Your task to perform on an android device: turn on the 24-hour format for clock Image 0: 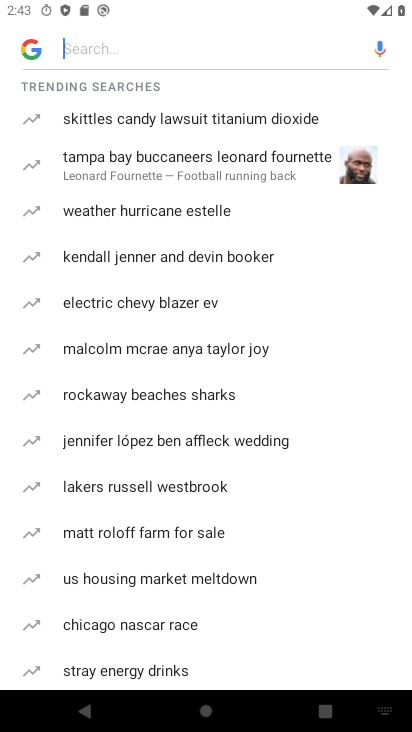
Step 0: press home button
Your task to perform on an android device: turn on the 24-hour format for clock Image 1: 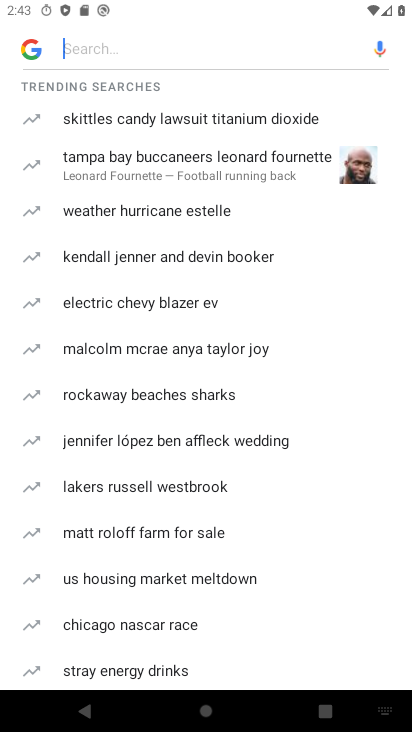
Step 1: press home button
Your task to perform on an android device: turn on the 24-hour format for clock Image 2: 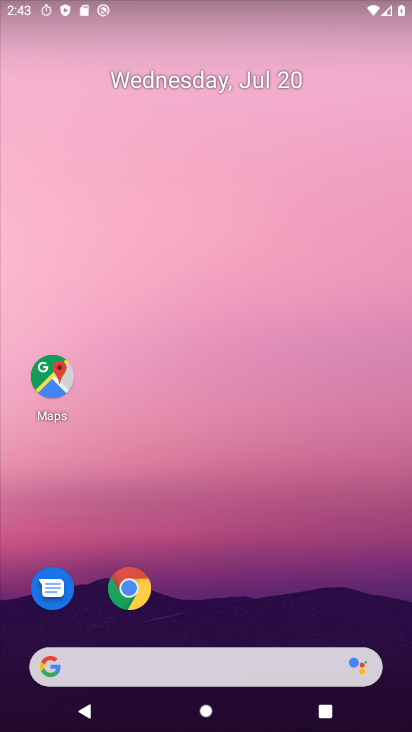
Step 2: drag from (198, 618) to (260, 160)
Your task to perform on an android device: turn on the 24-hour format for clock Image 3: 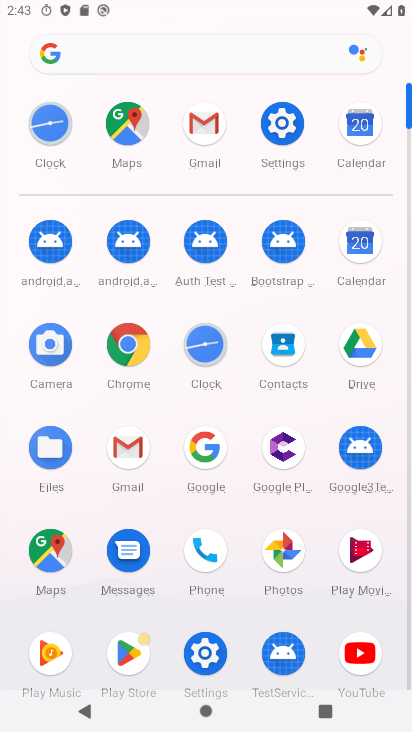
Step 3: click (204, 333)
Your task to perform on an android device: turn on the 24-hour format for clock Image 4: 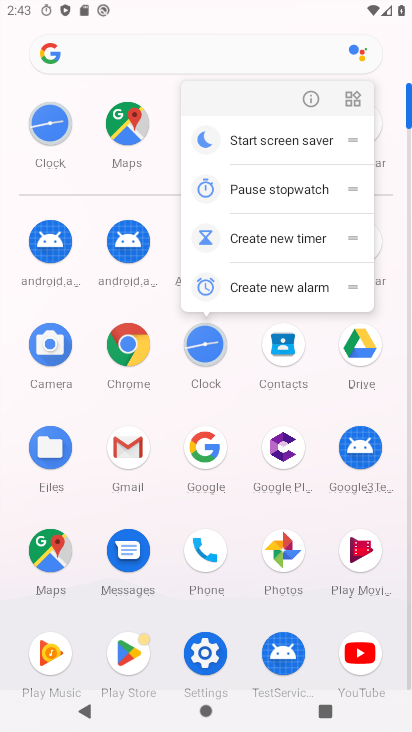
Step 4: click (312, 101)
Your task to perform on an android device: turn on the 24-hour format for clock Image 5: 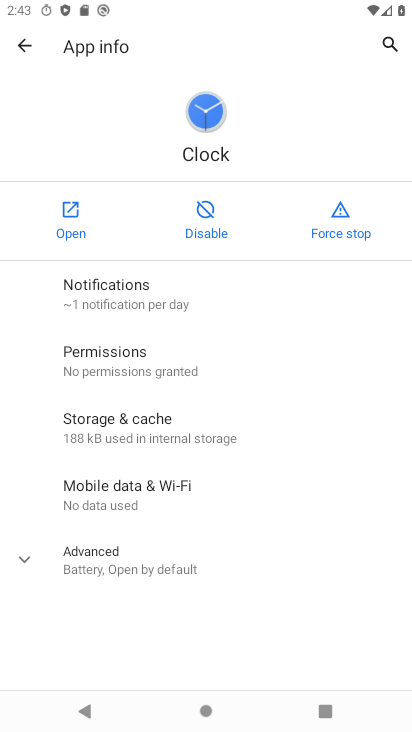
Step 5: click (55, 225)
Your task to perform on an android device: turn on the 24-hour format for clock Image 6: 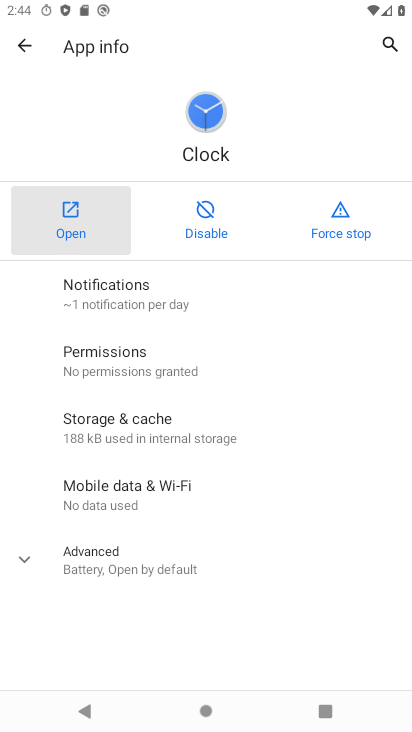
Step 6: click (55, 225)
Your task to perform on an android device: turn on the 24-hour format for clock Image 7: 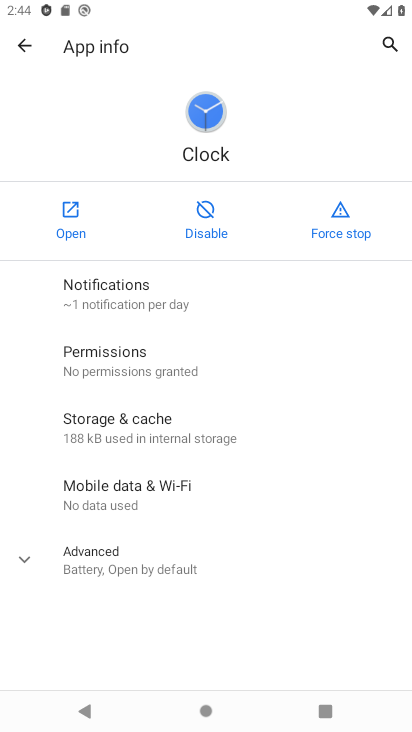
Step 7: click (55, 225)
Your task to perform on an android device: turn on the 24-hour format for clock Image 8: 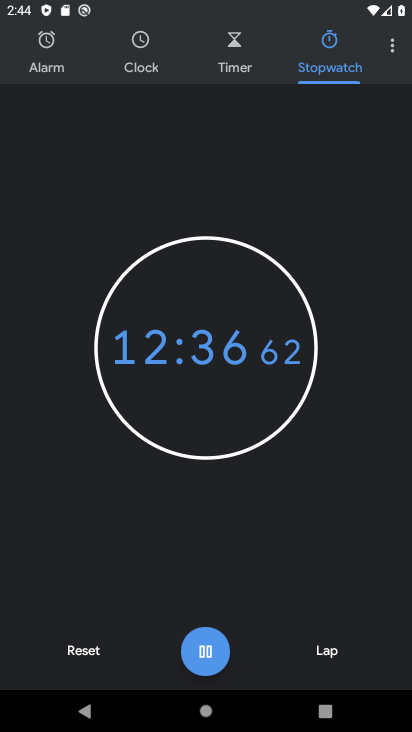
Step 8: click (395, 50)
Your task to perform on an android device: turn on the 24-hour format for clock Image 9: 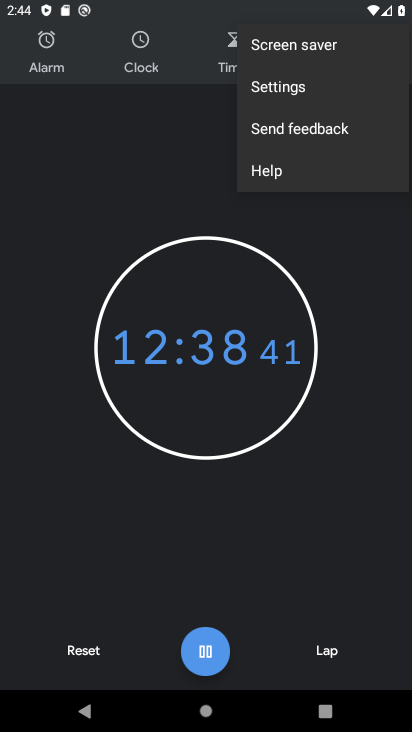
Step 9: click (302, 72)
Your task to perform on an android device: turn on the 24-hour format for clock Image 10: 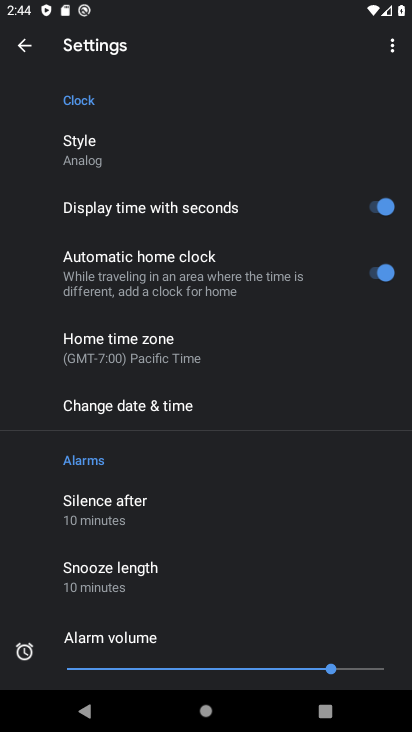
Step 10: drag from (210, 483) to (282, 153)
Your task to perform on an android device: turn on the 24-hour format for clock Image 11: 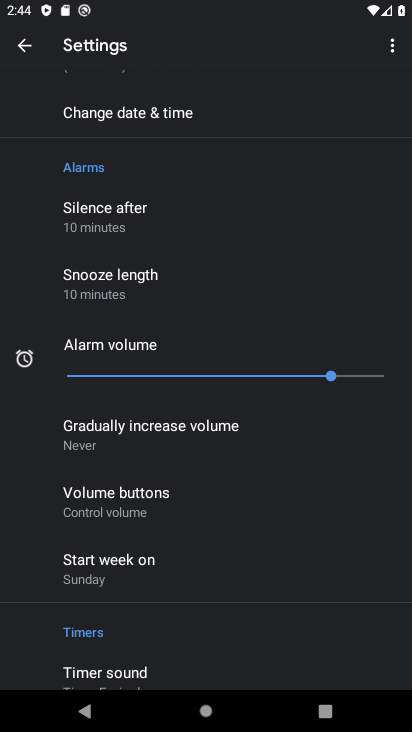
Step 11: drag from (193, 278) to (231, 691)
Your task to perform on an android device: turn on the 24-hour format for clock Image 12: 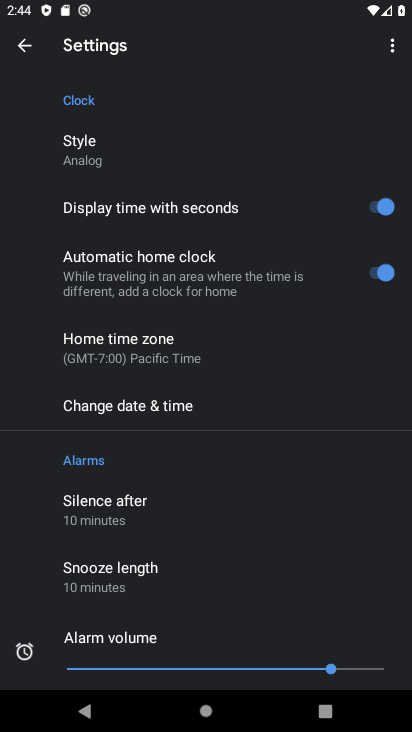
Step 12: click (105, 149)
Your task to perform on an android device: turn on the 24-hour format for clock Image 13: 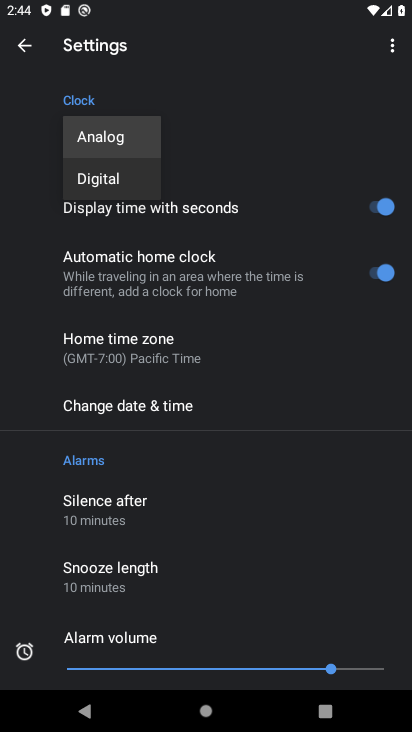
Step 13: click (107, 187)
Your task to perform on an android device: turn on the 24-hour format for clock Image 14: 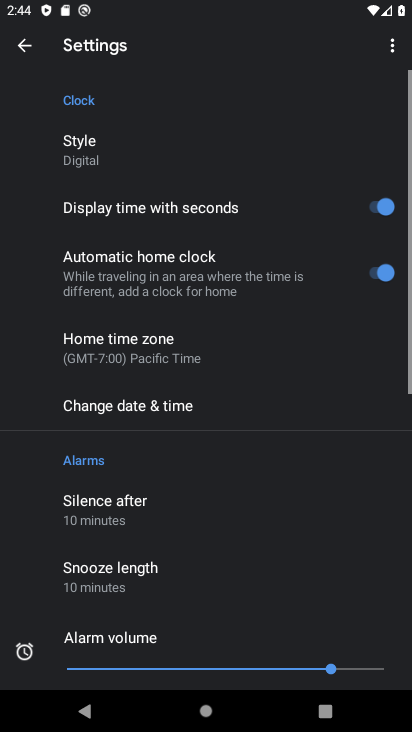
Step 14: drag from (162, 434) to (213, 613)
Your task to perform on an android device: turn on the 24-hour format for clock Image 15: 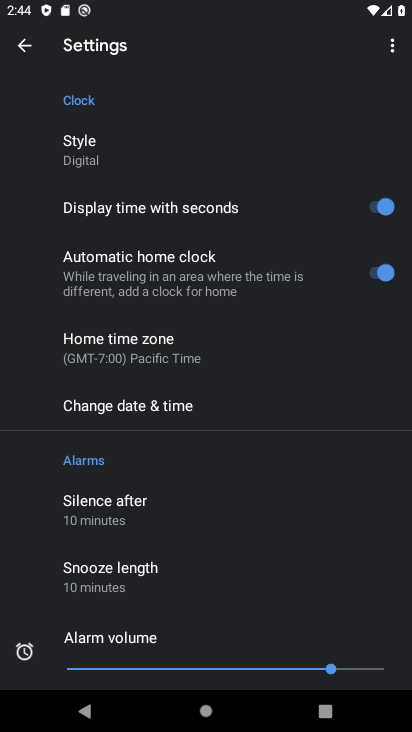
Step 15: click (209, 403)
Your task to perform on an android device: turn on the 24-hour format for clock Image 16: 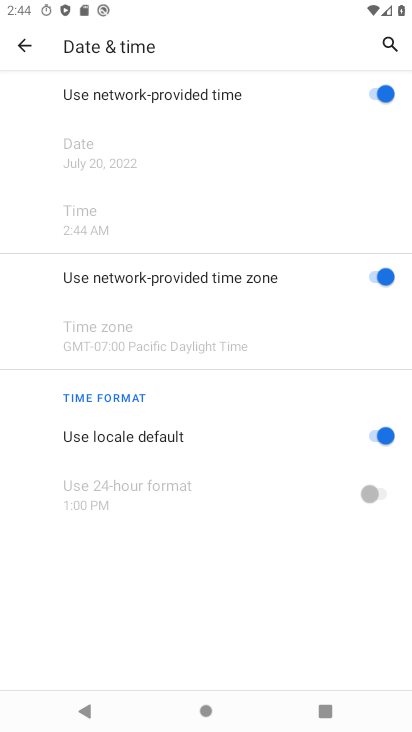
Step 16: click (21, 50)
Your task to perform on an android device: turn on the 24-hour format for clock Image 17: 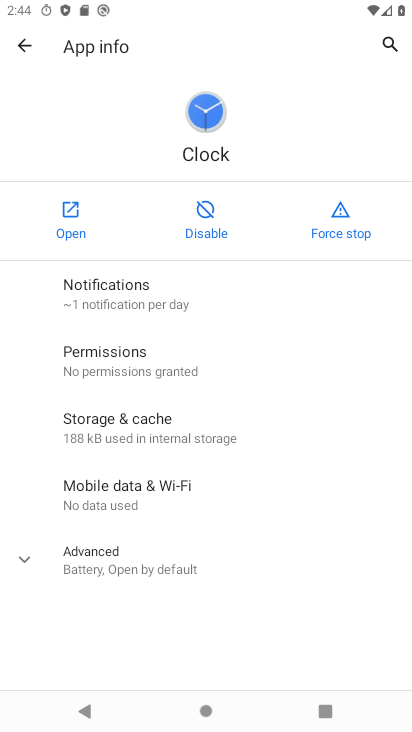
Step 17: click (86, 217)
Your task to perform on an android device: turn on the 24-hour format for clock Image 18: 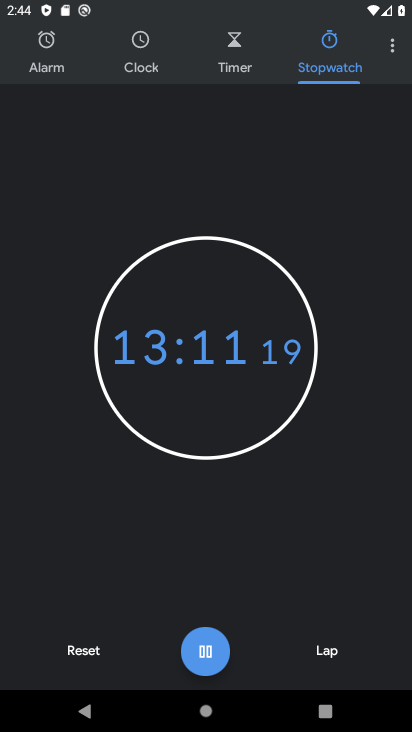
Step 18: click (403, 52)
Your task to perform on an android device: turn on the 24-hour format for clock Image 19: 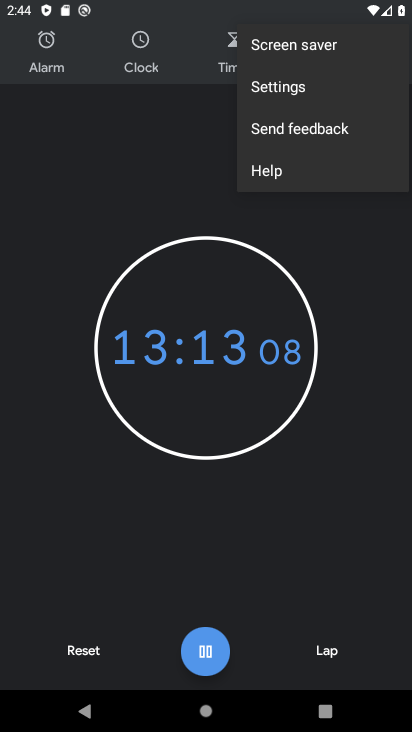
Step 19: click (290, 85)
Your task to perform on an android device: turn on the 24-hour format for clock Image 20: 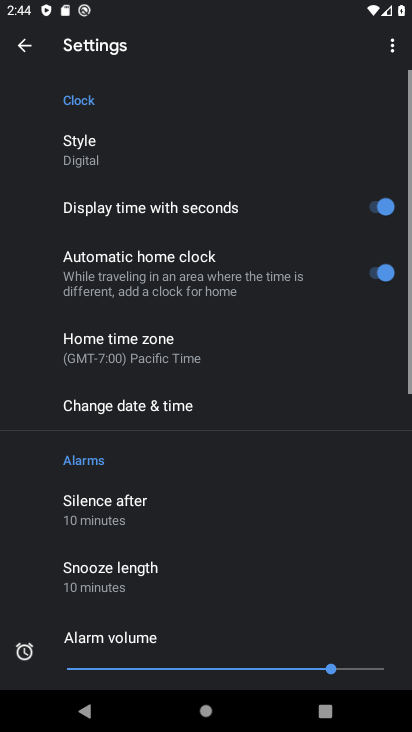
Step 20: click (97, 146)
Your task to perform on an android device: turn on the 24-hour format for clock Image 21: 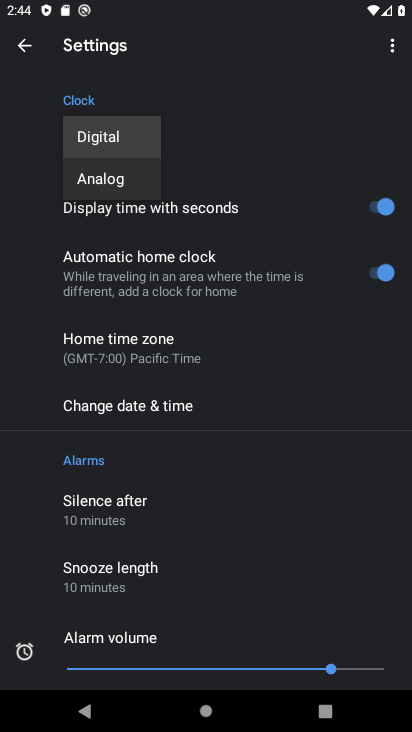
Step 21: click (116, 146)
Your task to perform on an android device: turn on the 24-hour format for clock Image 22: 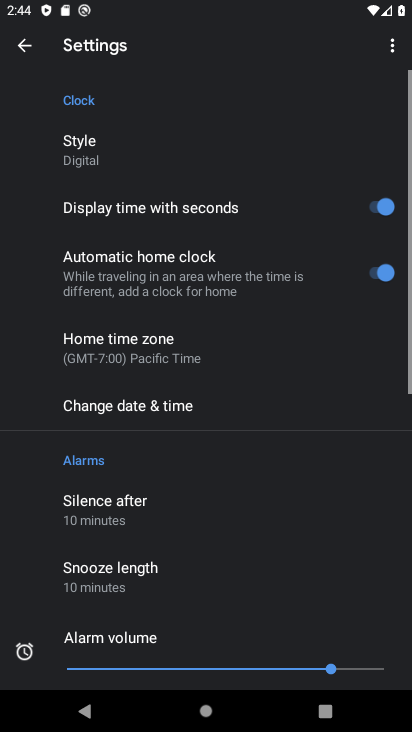
Step 22: click (154, 408)
Your task to perform on an android device: turn on the 24-hour format for clock Image 23: 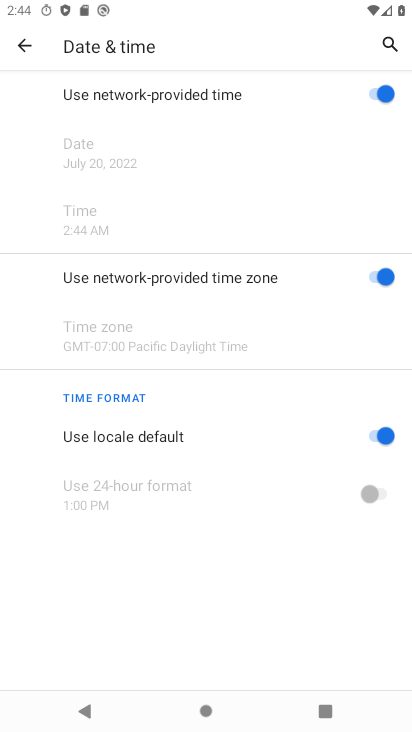
Step 23: click (383, 435)
Your task to perform on an android device: turn on the 24-hour format for clock Image 24: 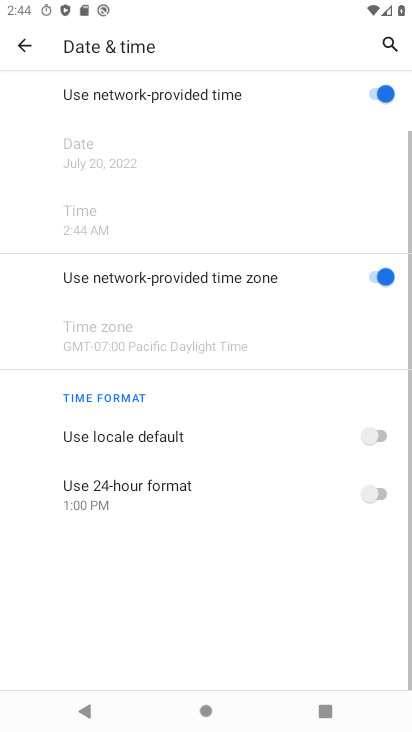
Step 24: click (372, 487)
Your task to perform on an android device: turn on the 24-hour format for clock Image 25: 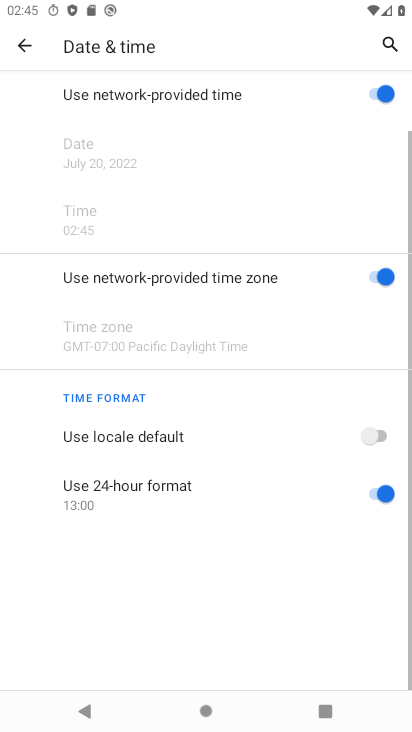
Step 25: task complete